Your task to perform on an android device: turn off notifications settings in the gmail app Image 0: 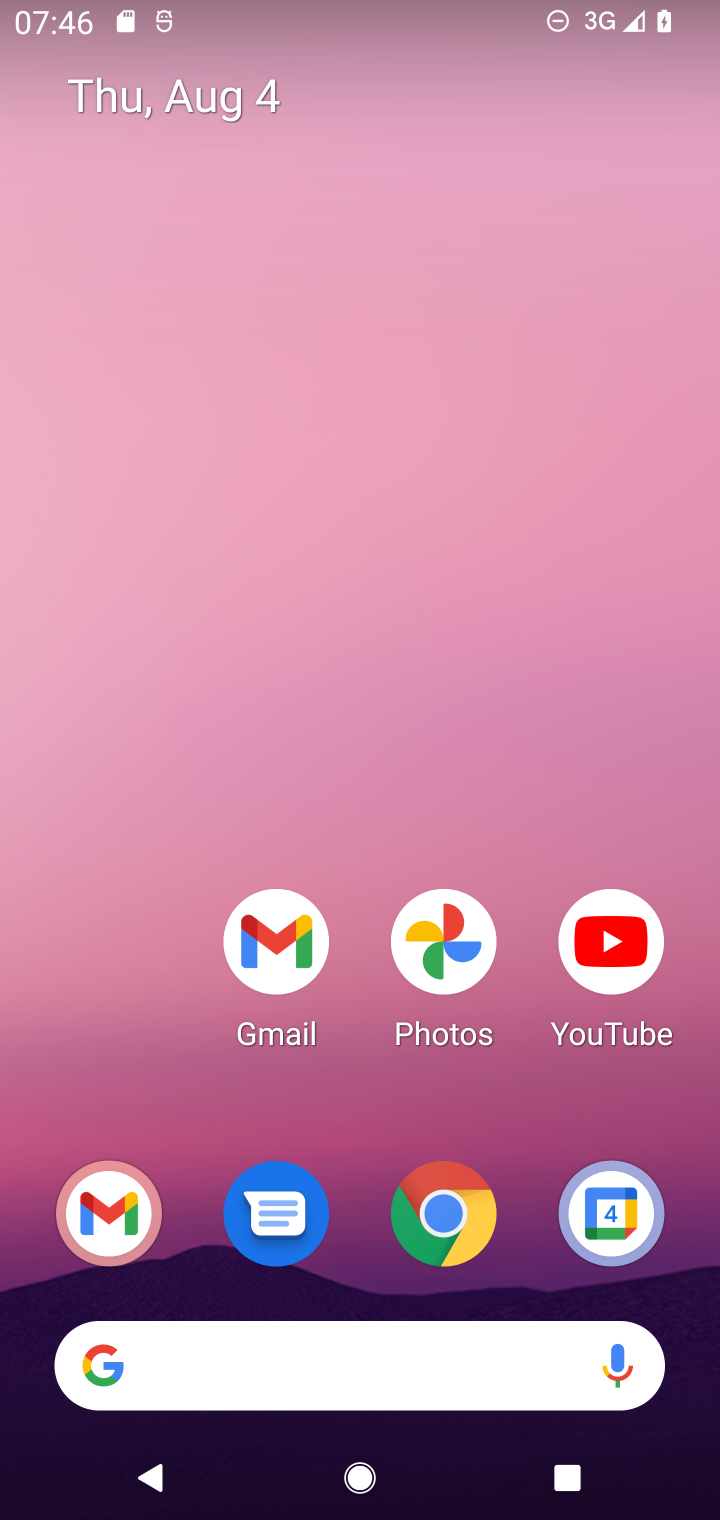
Step 0: drag from (157, 1105) to (103, 252)
Your task to perform on an android device: turn off notifications settings in the gmail app Image 1: 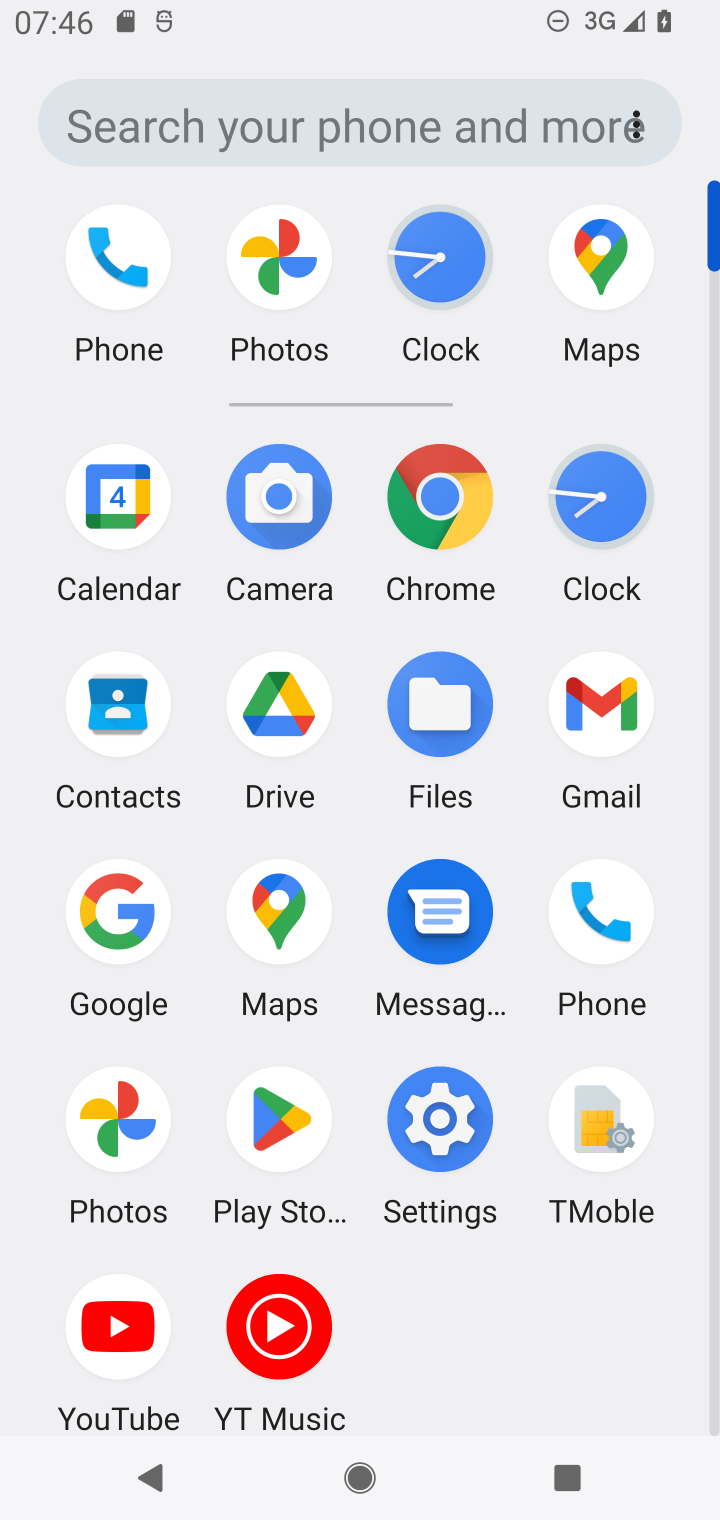
Step 1: click (605, 692)
Your task to perform on an android device: turn off notifications settings in the gmail app Image 2: 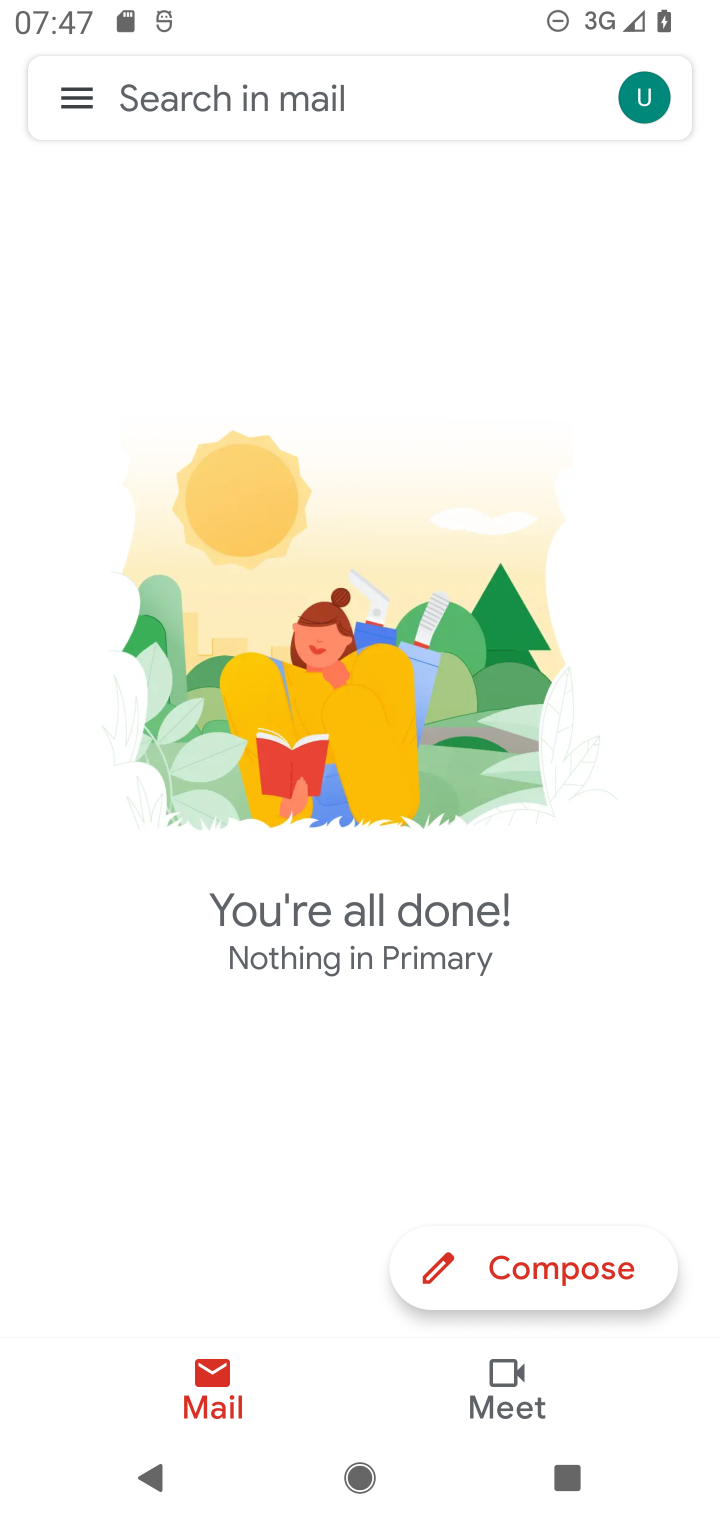
Step 2: click (76, 101)
Your task to perform on an android device: turn off notifications settings in the gmail app Image 3: 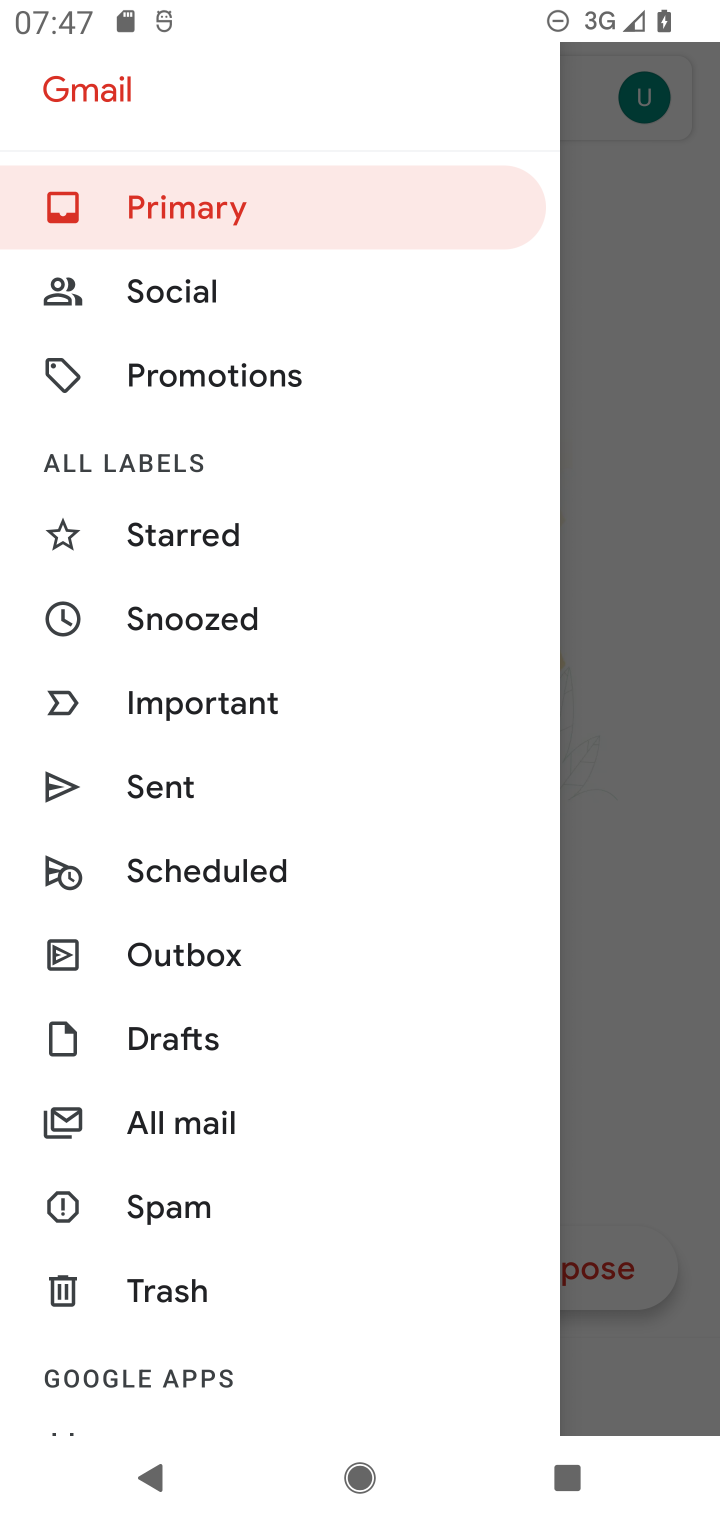
Step 3: drag from (399, 1014) to (412, 808)
Your task to perform on an android device: turn off notifications settings in the gmail app Image 4: 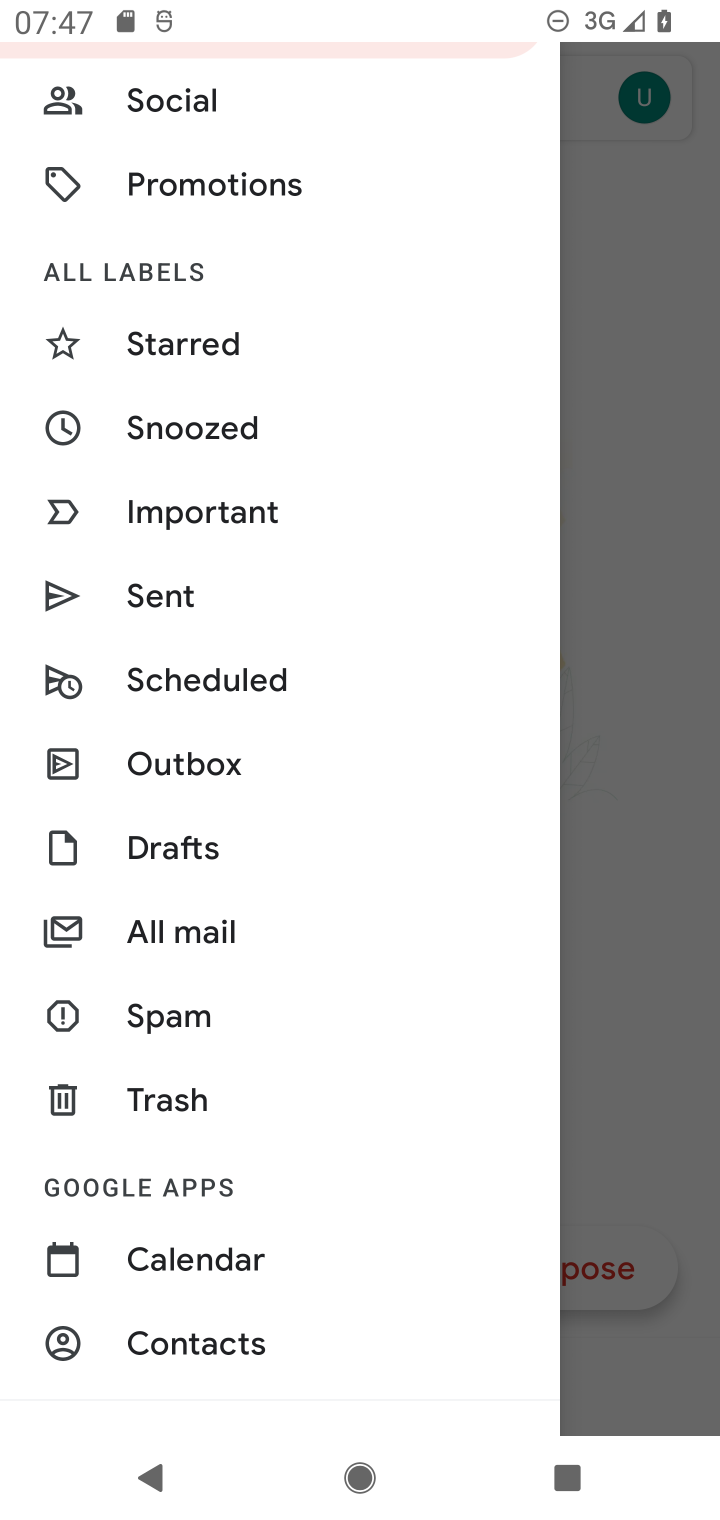
Step 4: drag from (407, 1187) to (409, 767)
Your task to perform on an android device: turn off notifications settings in the gmail app Image 5: 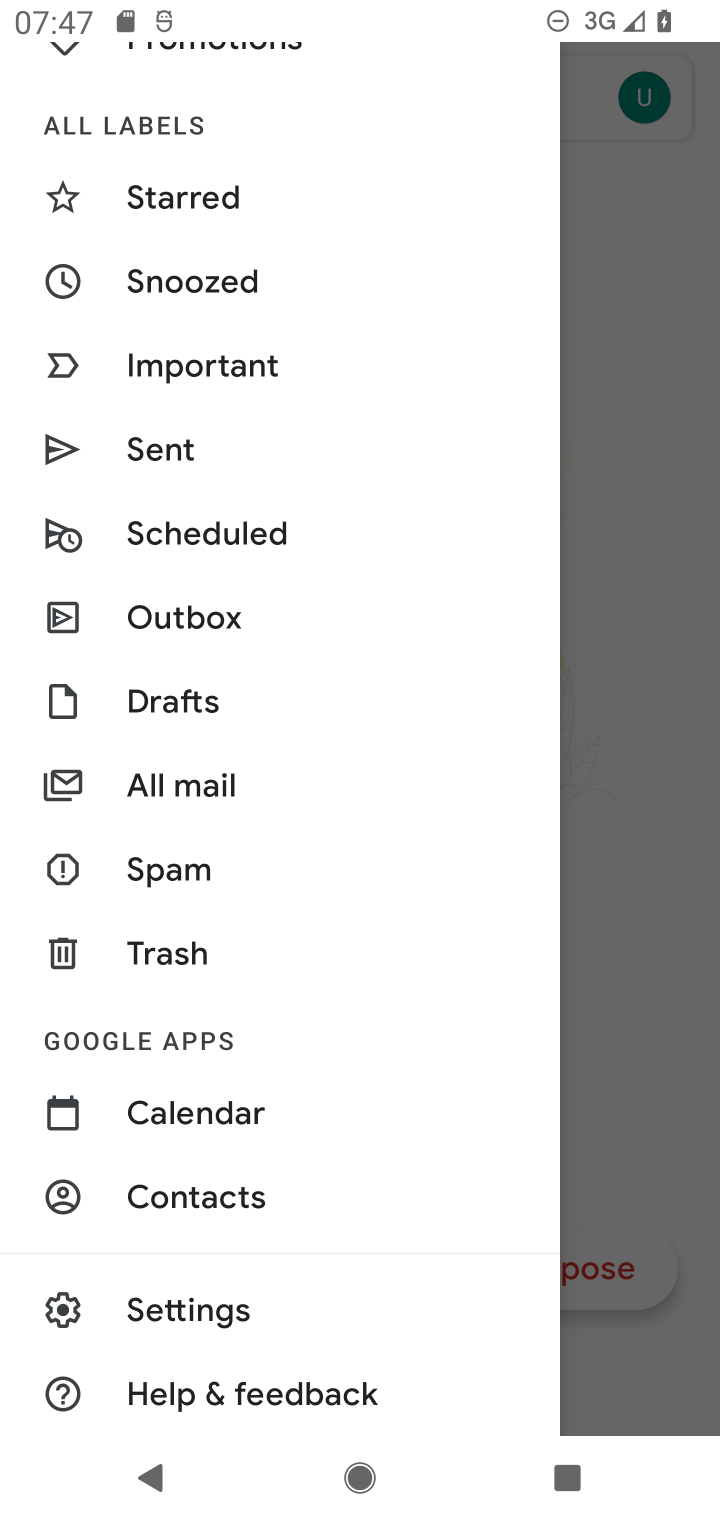
Step 5: click (228, 1314)
Your task to perform on an android device: turn off notifications settings in the gmail app Image 6: 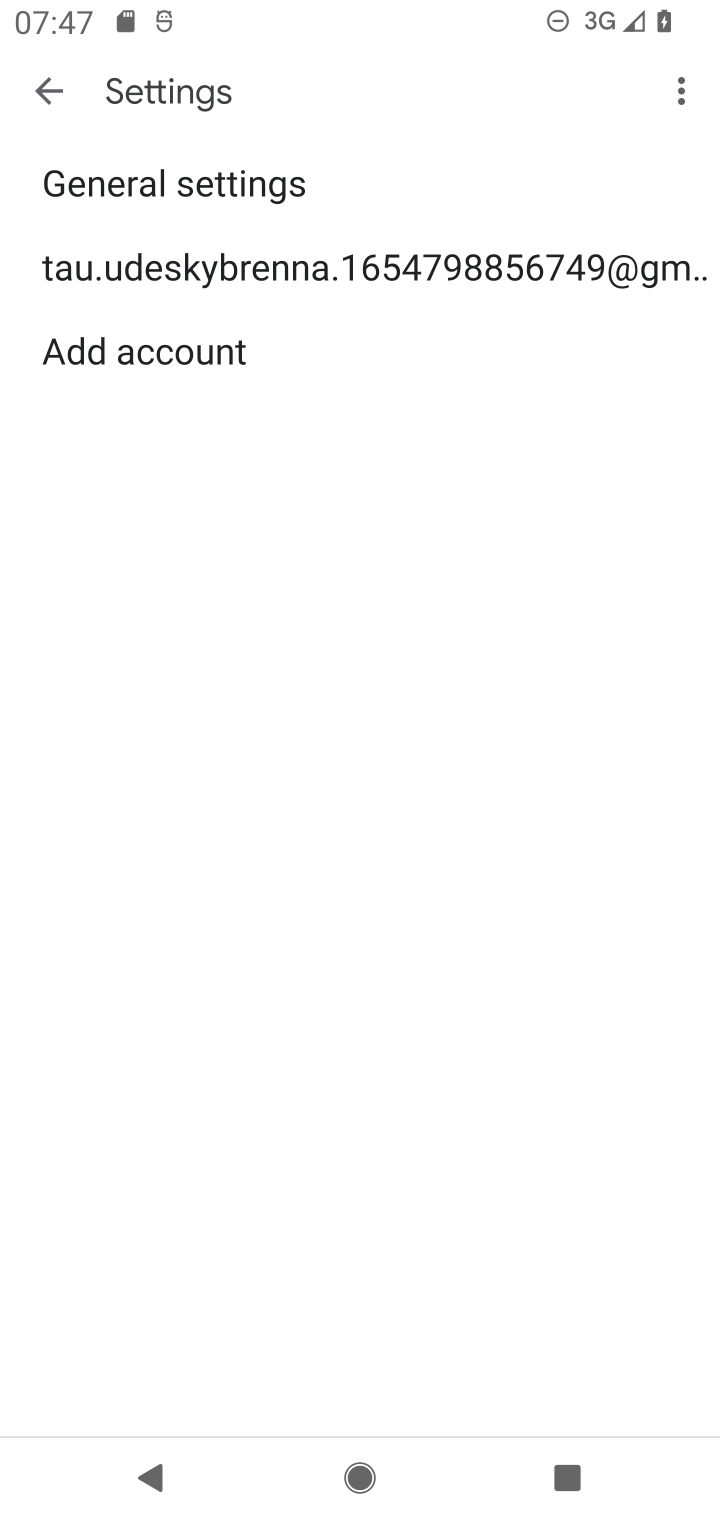
Step 6: click (404, 247)
Your task to perform on an android device: turn off notifications settings in the gmail app Image 7: 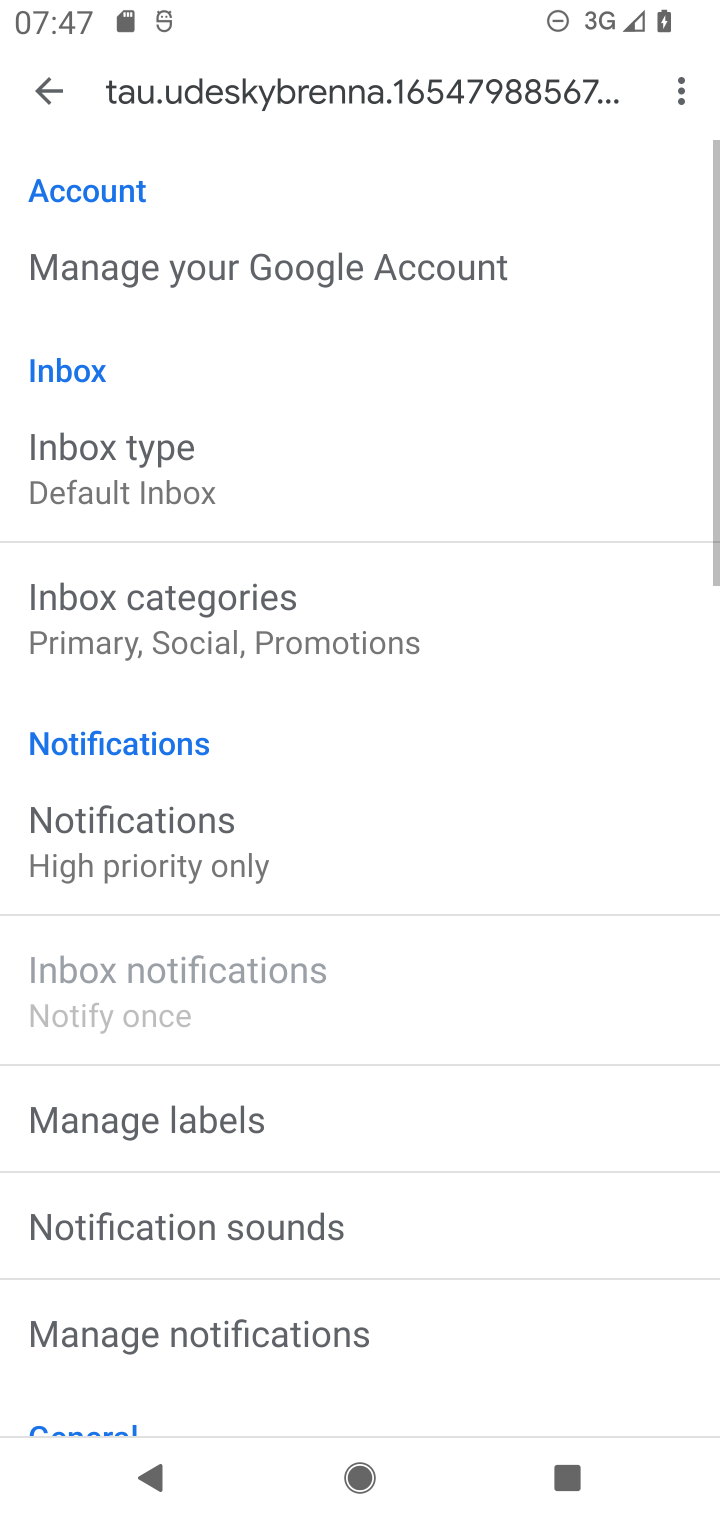
Step 7: drag from (525, 1052) to (525, 866)
Your task to perform on an android device: turn off notifications settings in the gmail app Image 8: 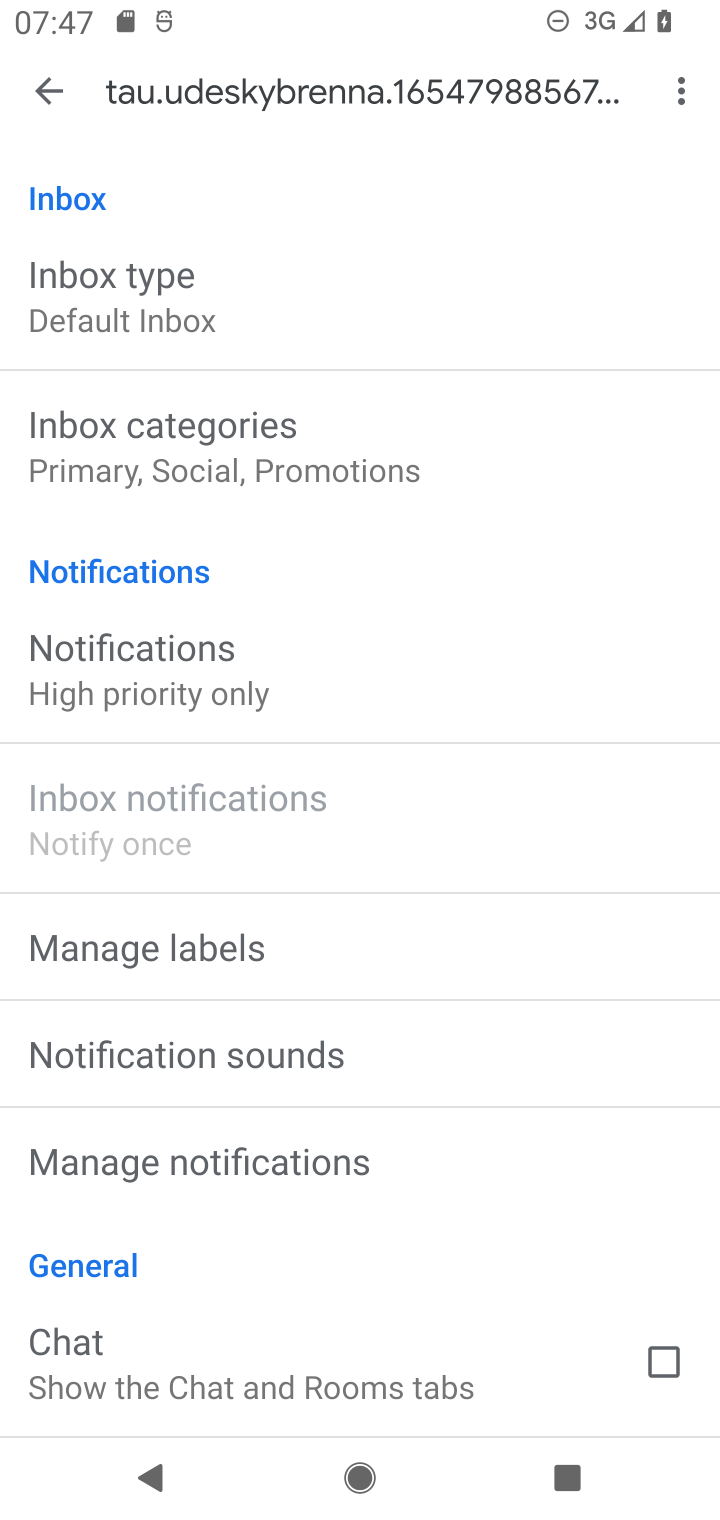
Step 8: drag from (527, 1157) to (532, 902)
Your task to perform on an android device: turn off notifications settings in the gmail app Image 9: 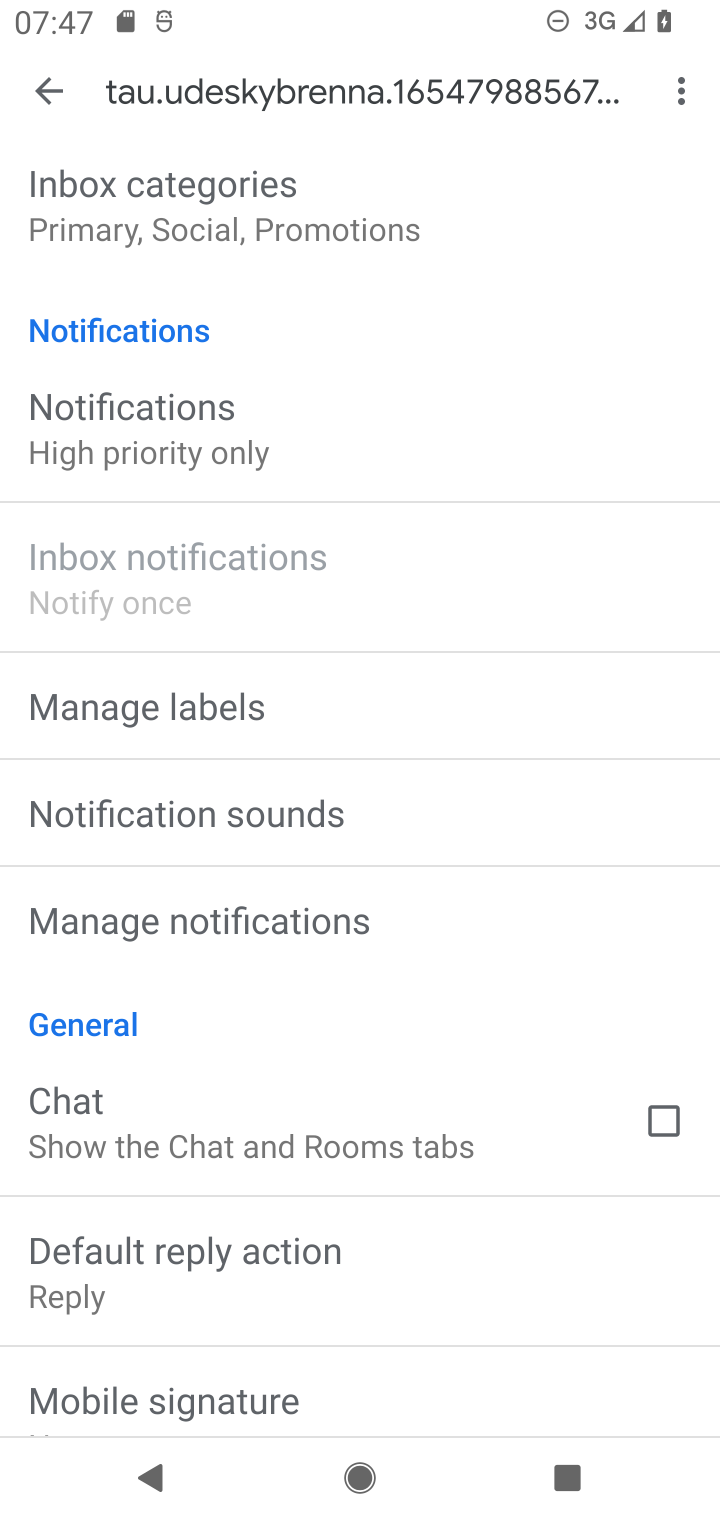
Step 9: drag from (532, 1200) to (530, 876)
Your task to perform on an android device: turn off notifications settings in the gmail app Image 10: 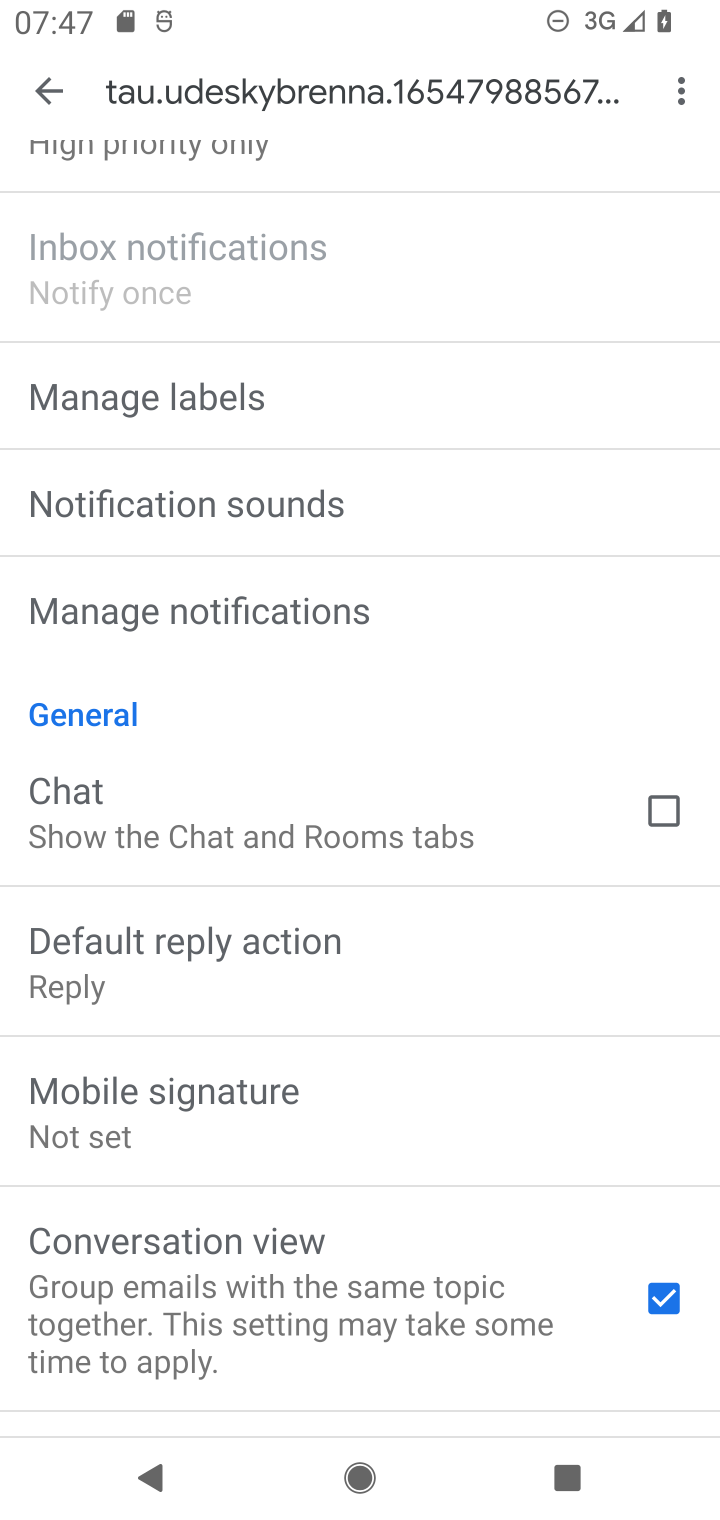
Step 10: drag from (526, 1149) to (528, 839)
Your task to perform on an android device: turn off notifications settings in the gmail app Image 11: 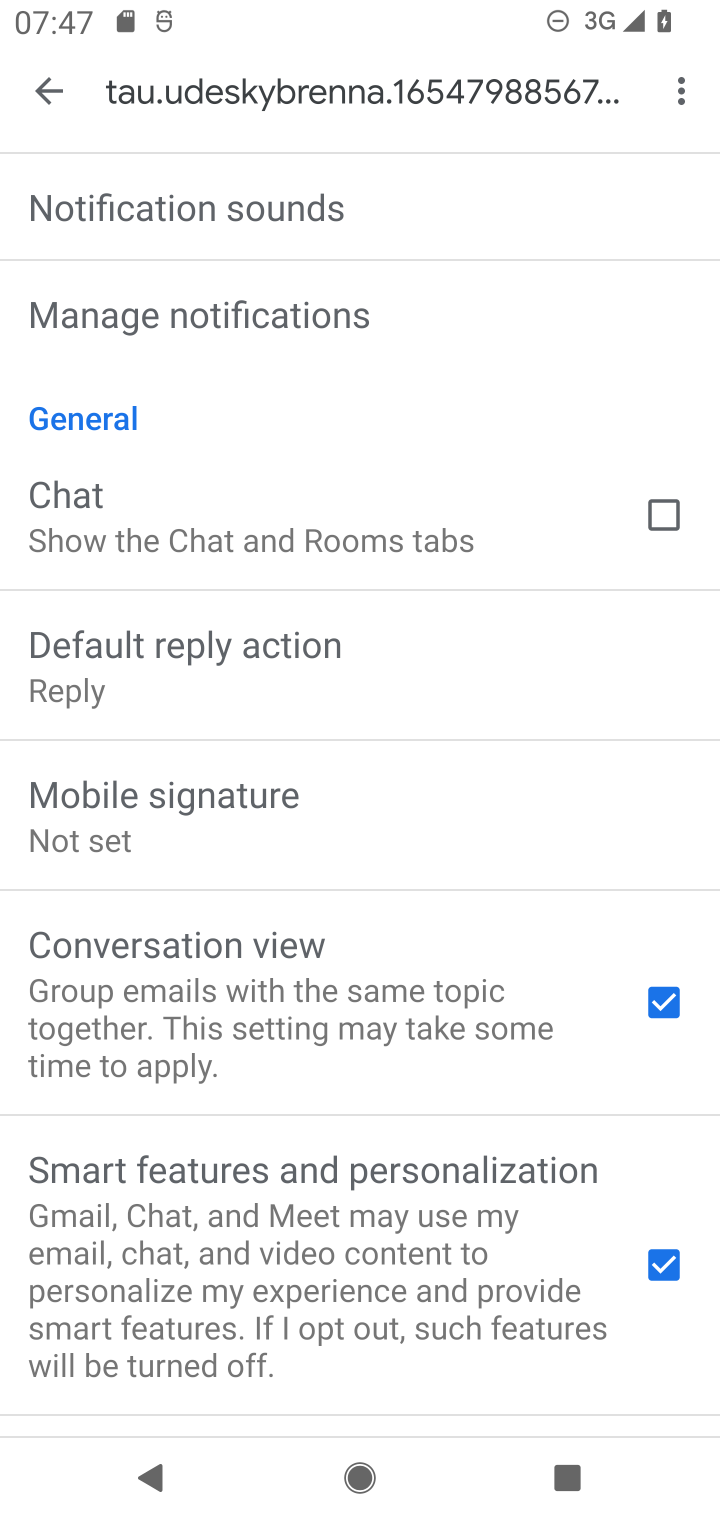
Step 11: drag from (528, 1189) to (532, 891)
Your task to perform on an android device: turn off notifications settings in the gmail app Image 12: 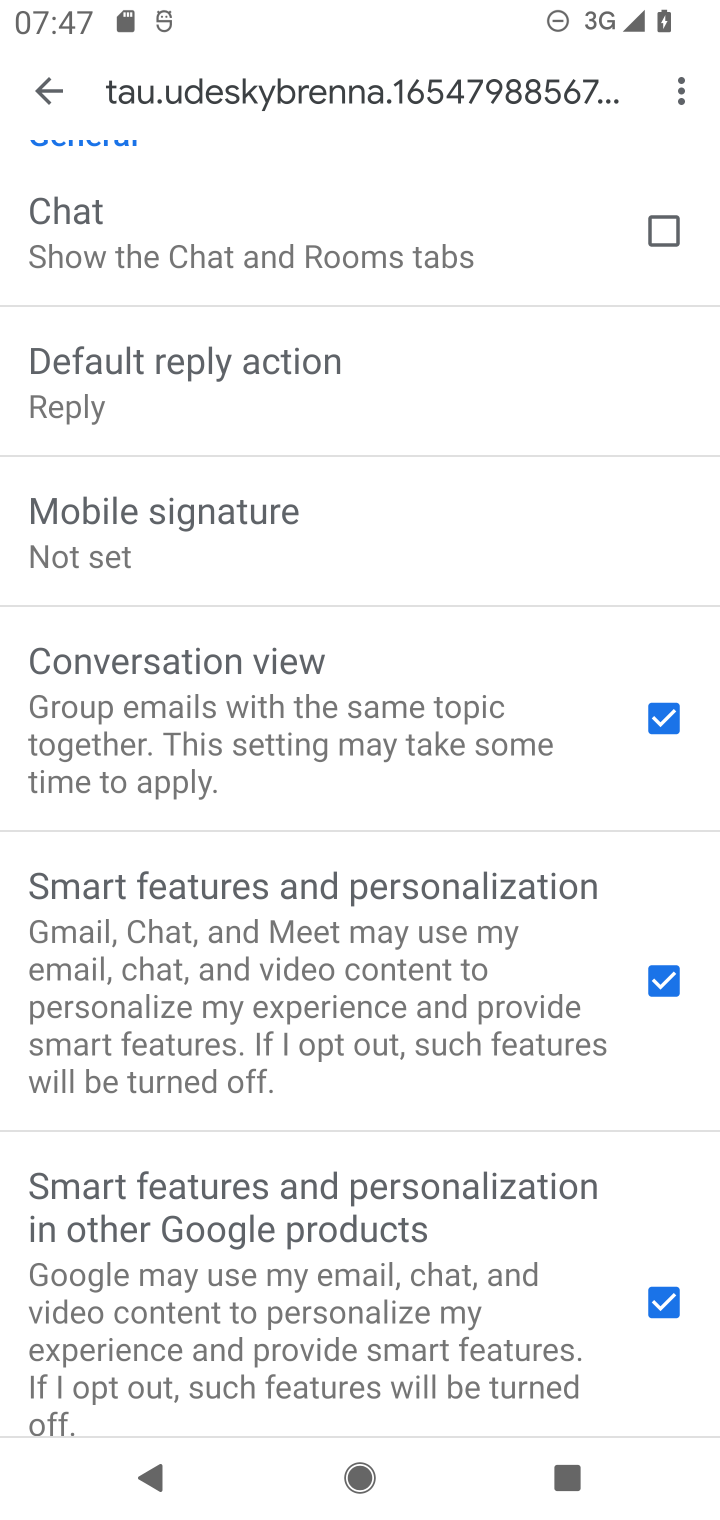
Step 12: drag from (383, 1135) to (381, 910)
Your task to perform on an android device: turn off notifications settings in the gmail app Image 13: 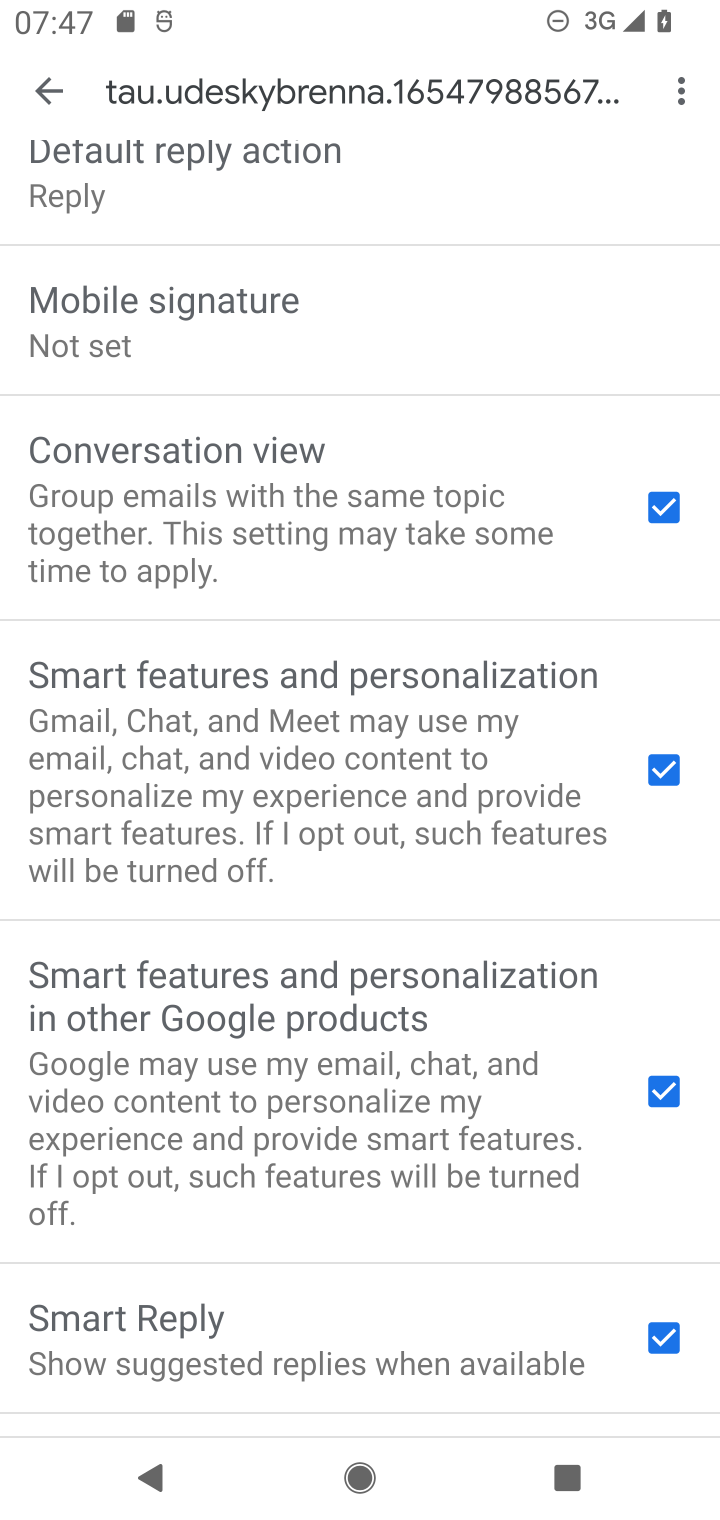
Step 13: drag from (385, 1146) to (388, 799)
Your task to perform on an android device: turn off notifications settings in the gmail app Image 14: 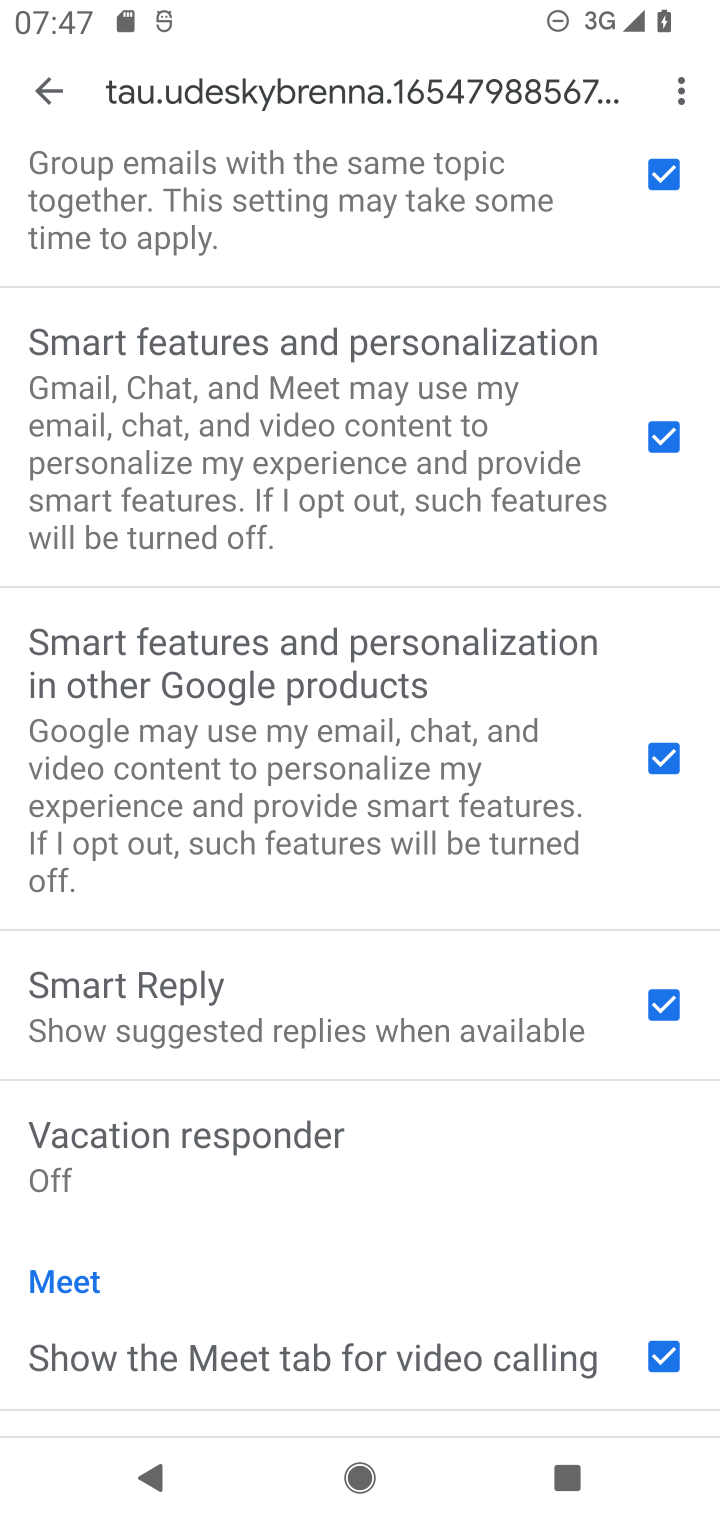
Step 14: drag from (413, 1200) to (436, 913)
Your task to perform on an android device: turn off notifications settings in the gmail app Image 15: 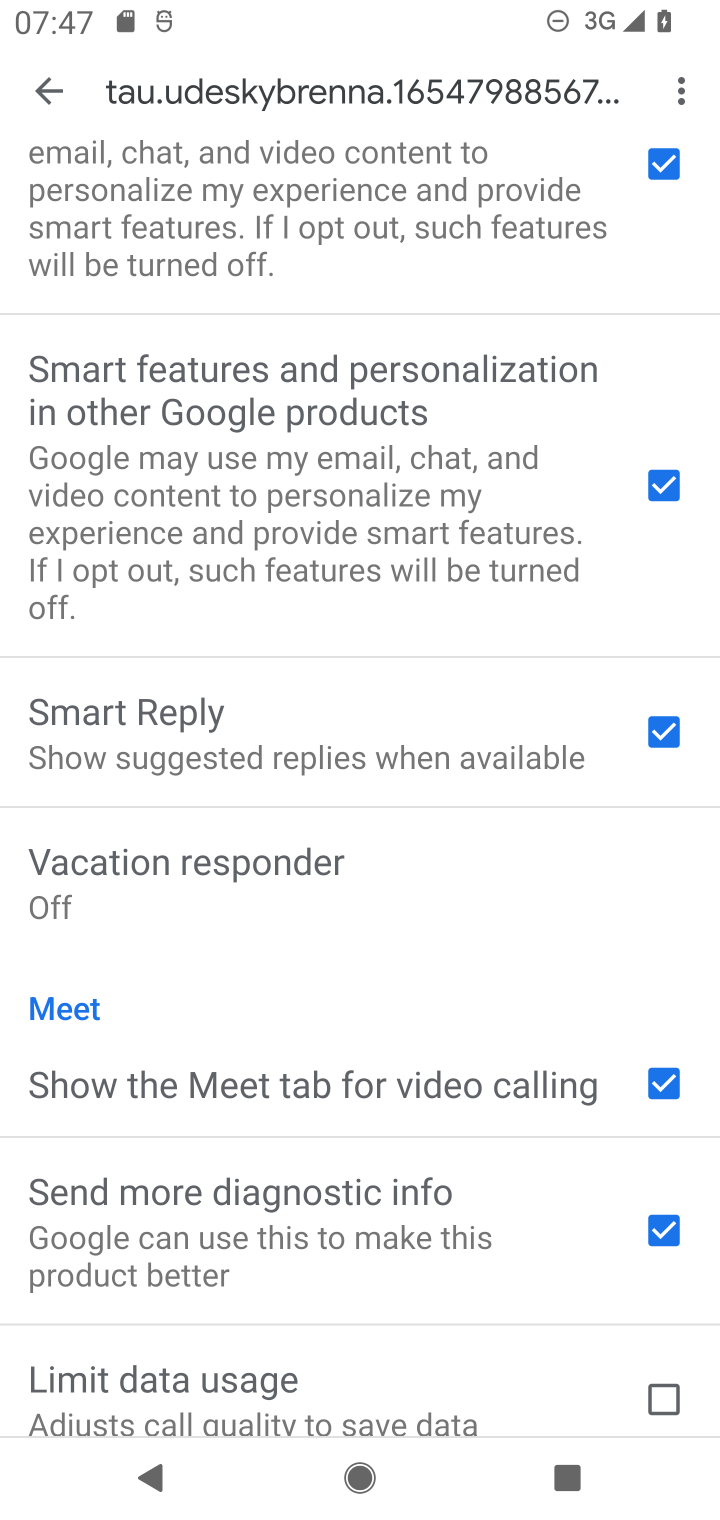
Step 15: drag from (444, 540) to (480, 840)
Your task to perform on an android device: turn off notifications settings in the gmail app Image 16: 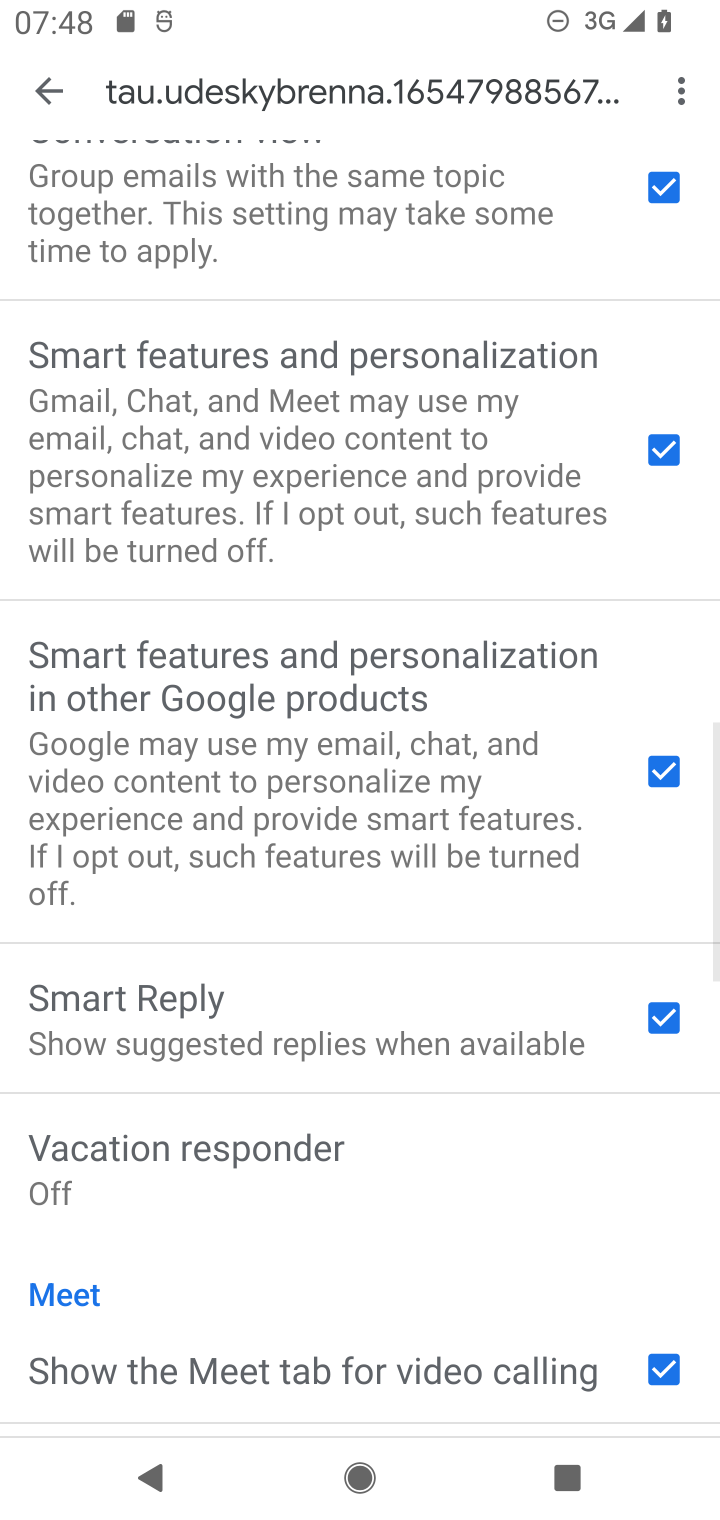
Step 16: drag from (453, 517) to (464, 824)
Your task to perform on an android device: turn off notifications settings in the gmail app Image 17: 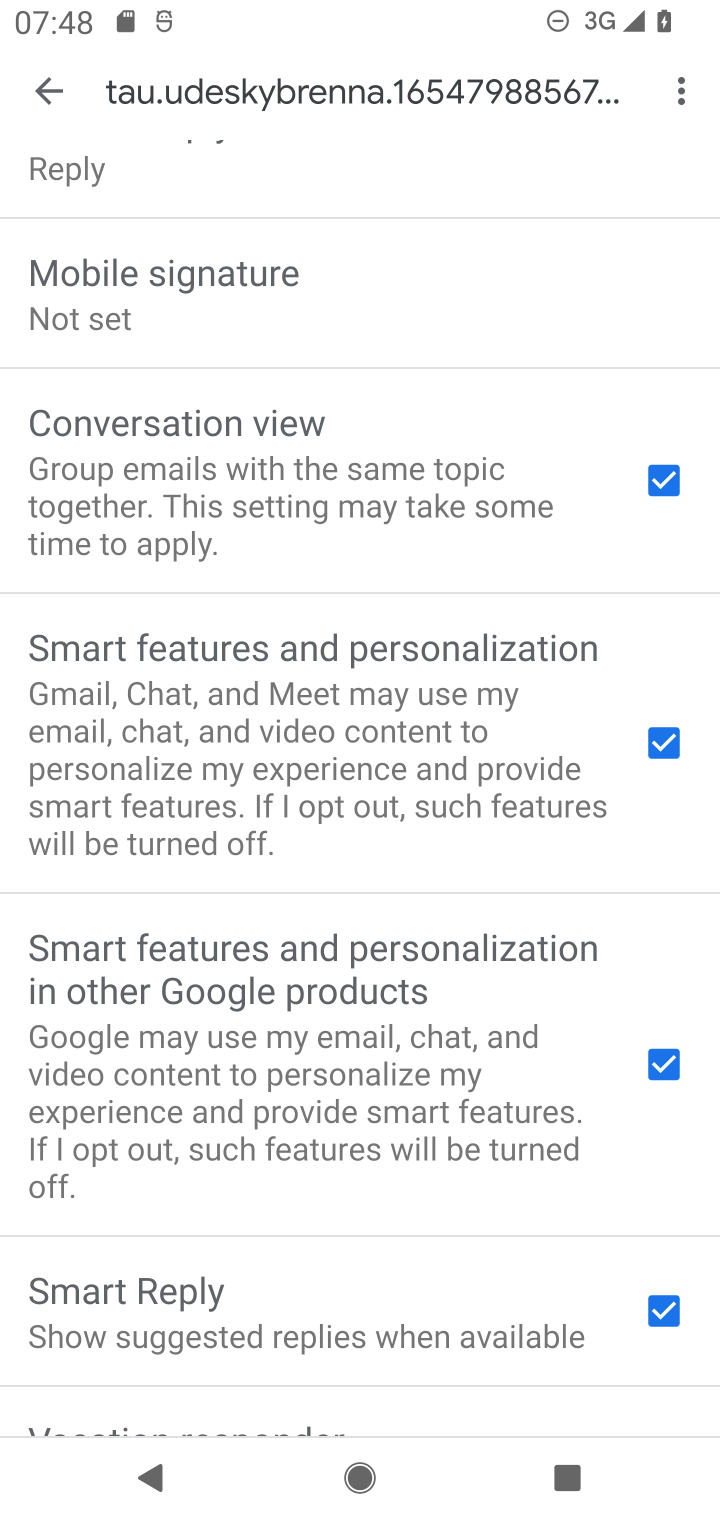
Step 17: drag from (468, 495) to (490, 816)
Your task to perform on an android device: turn off notifications settings in the gmail app Image 18: 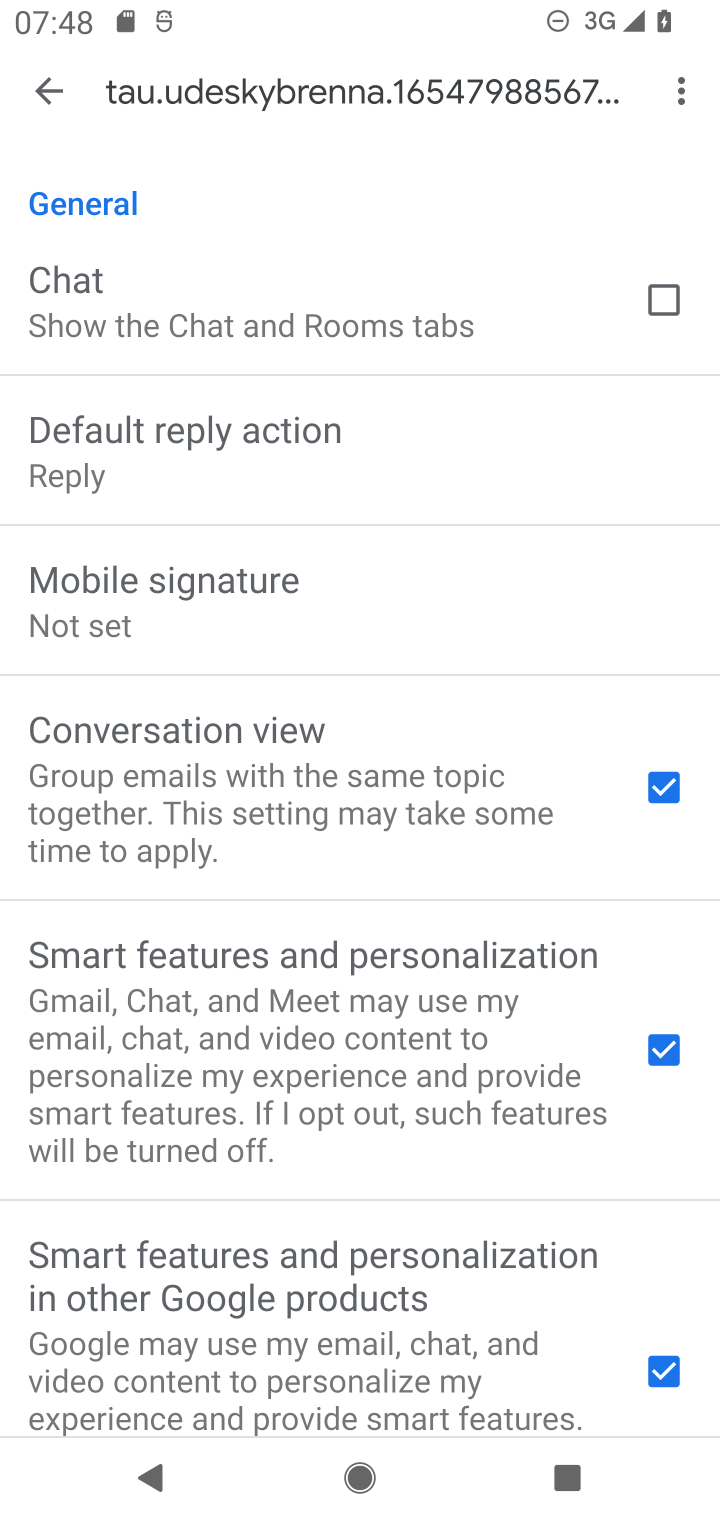
Step 18: drag from (438, 428) to (441, 727)
Your task to perform on an android device: turn off notifications settings in the gmail app Image 19: 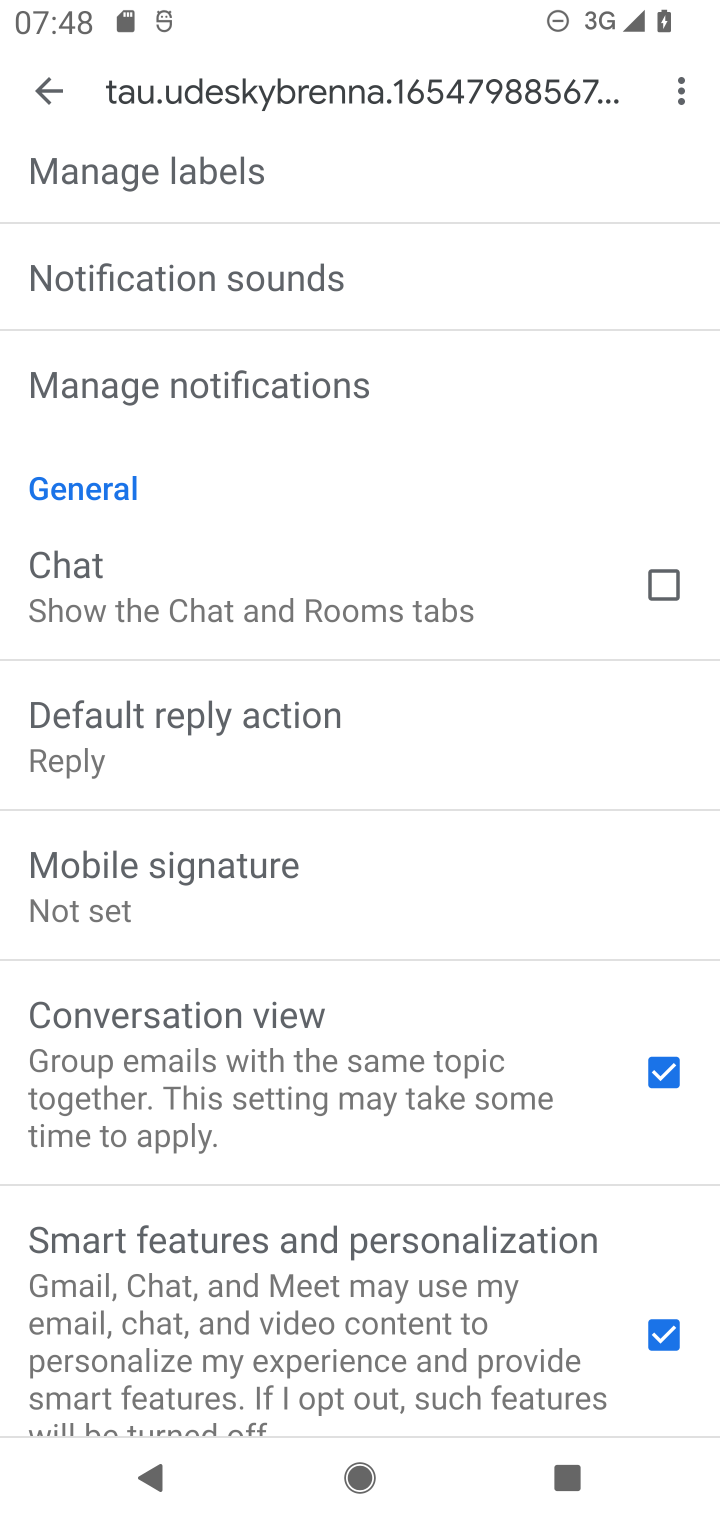
Step 19: drag from (412, 392) to (460, 860)
Your task to perform on an android device: turn off notifications settings in the gmail app Image 20: 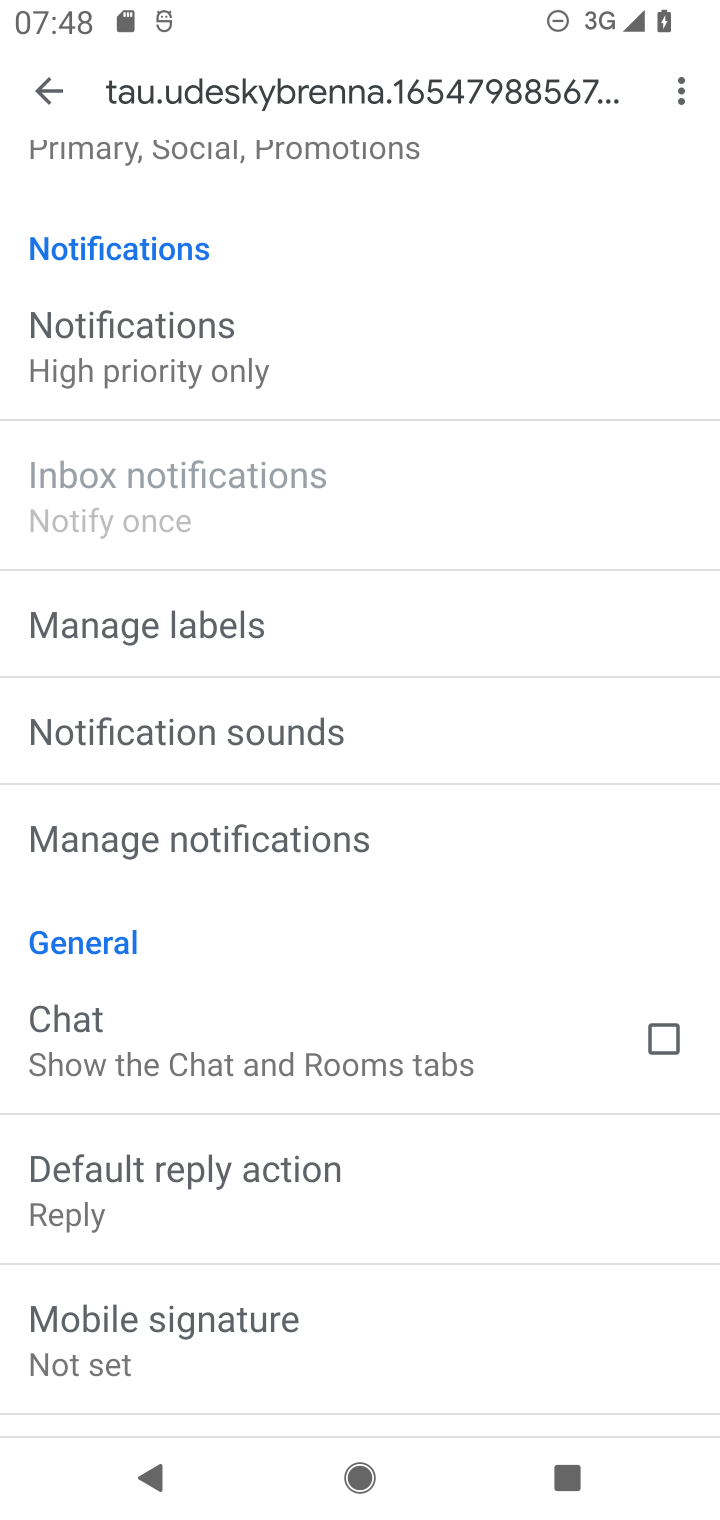
Step 20: click (458, 838)
Your task to perform on an android device: turn off notifications settings in the gmail app Image 21: 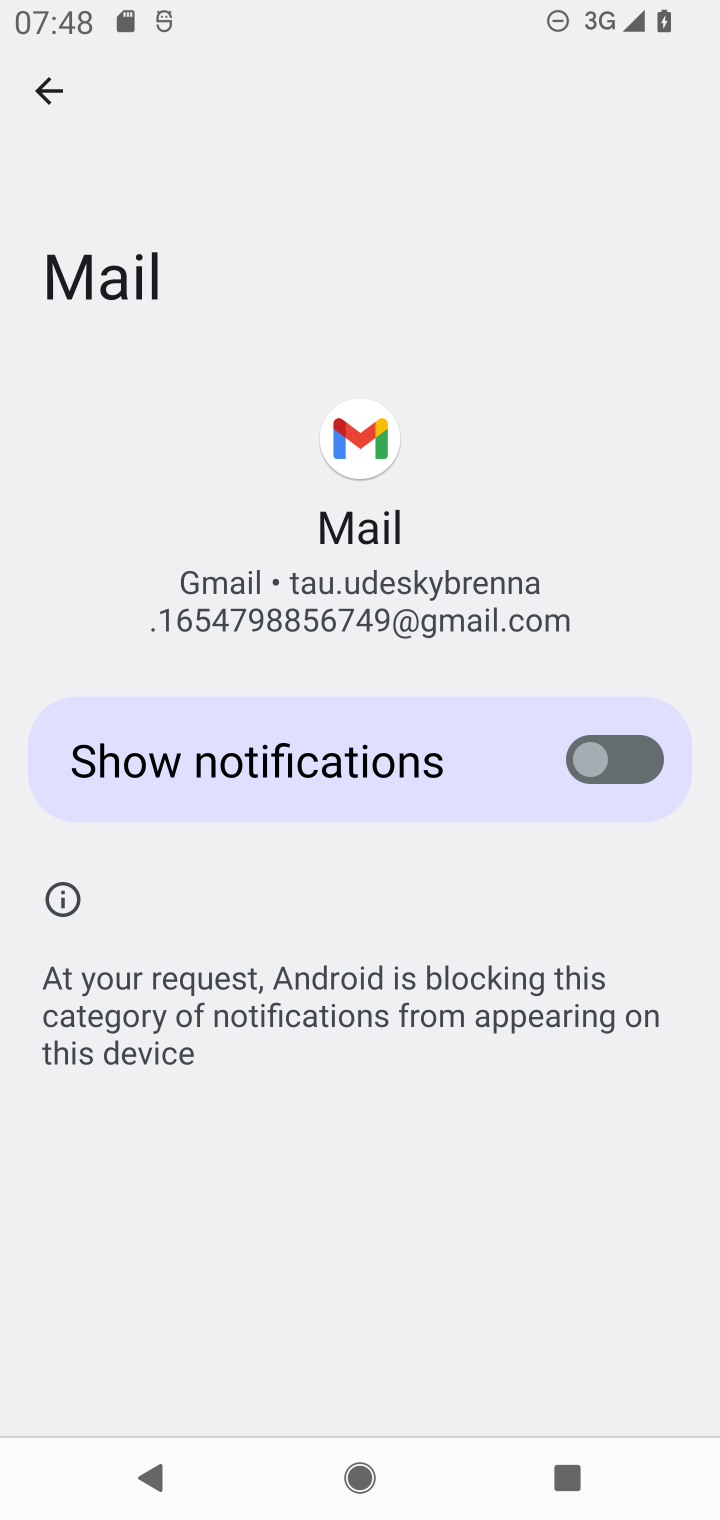
Step 21: task complete